Your task to perform on an android device: turn on airplane mode Image 0: 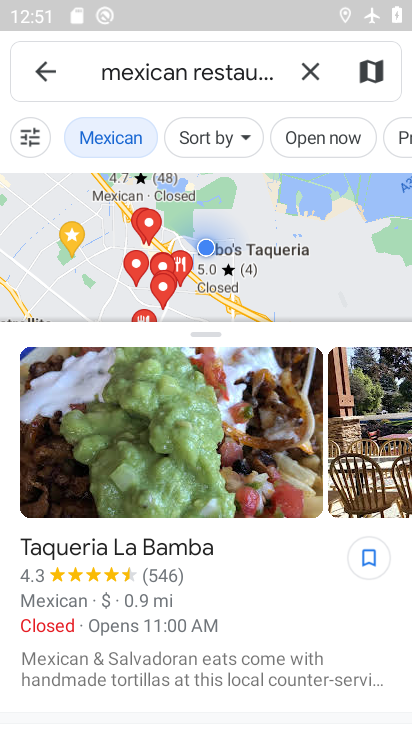
Step 0: press home button
Your task to perform on an android device: turn on airplane mode Image 1: 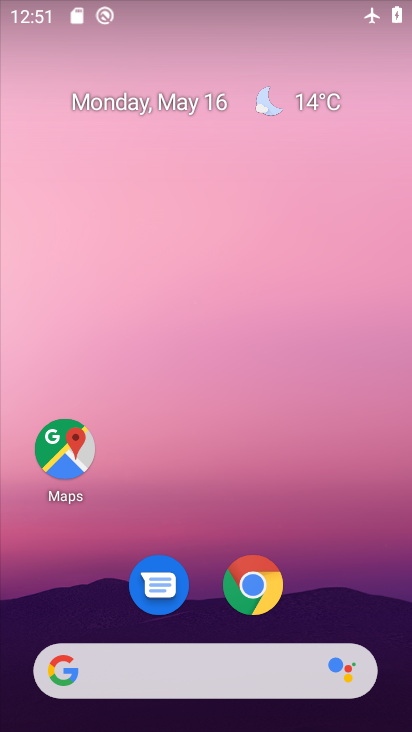
Step 1: drag from (203, 508) to (198, 30)
Your task to perform on an android device: turn on airplane mode Image 2: 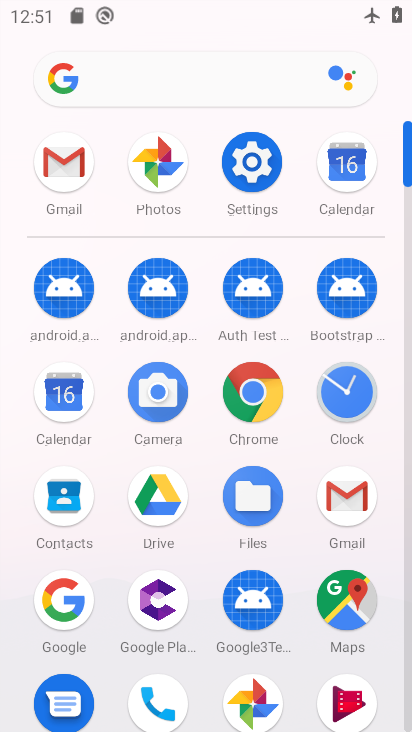
Step 2: click (254, 167)
Your task to perform on an android device: turn on airplane mode Image 3: 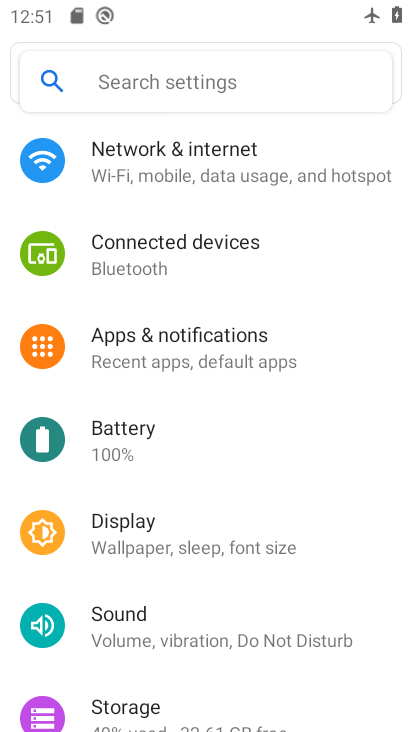
Step 3: click (256, 172)
Your task to perform on an android device: turn on airplane mode Image 4: 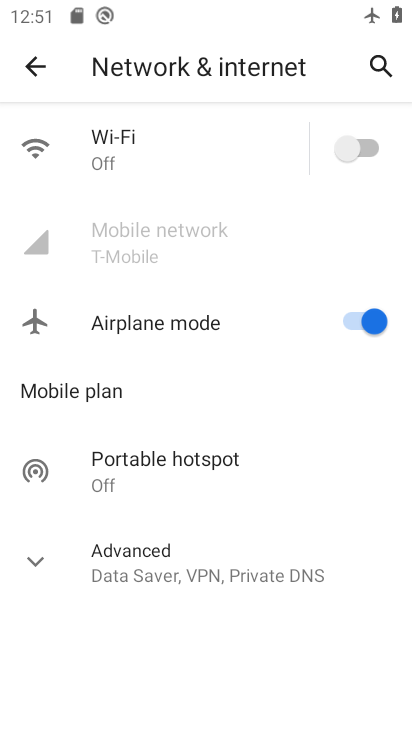
Step 4: task complete